Your task to perform on an android device: Play the last video I watched on Youtube Image 0: 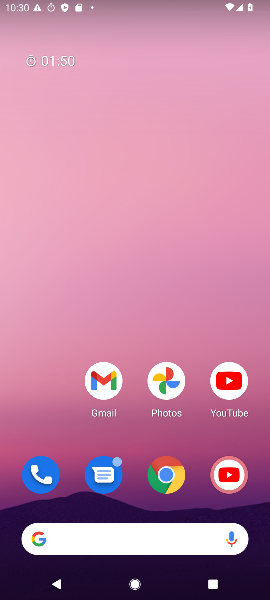
Step 0: click (215, 481)
Your task to perform on an android device: Play the last video I watched on Youtube Image 1: 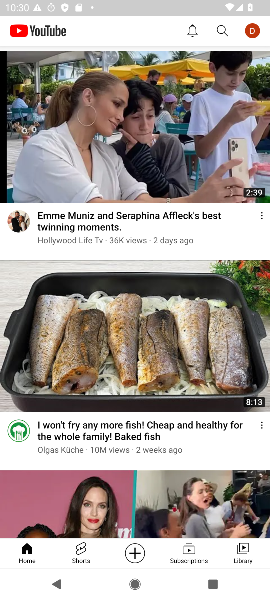
Step 1: click (242, 550)
Your task to perform on an android device: Play the last video I watched on Youtube Image 2: 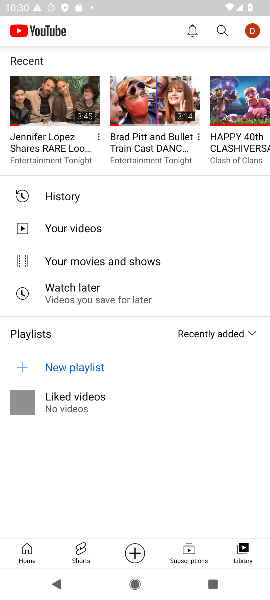
Step 2: click (53, 103)
Your task to perform on an android device: Play the last video I watched on Youtube Image 3: 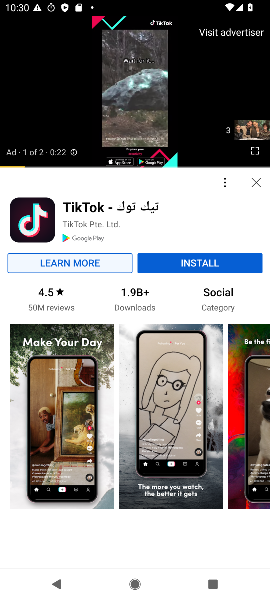
Step 3: click (252, 179)
Your task to perform on an android device: Play the last video I watched on Youtube Image 4: 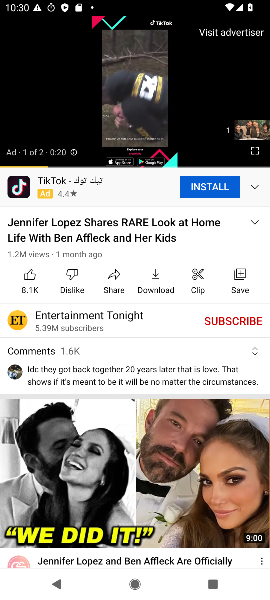
Step 4: task complete